Your task to perform on an android device: turn pop-ups off in chrome Image 0: 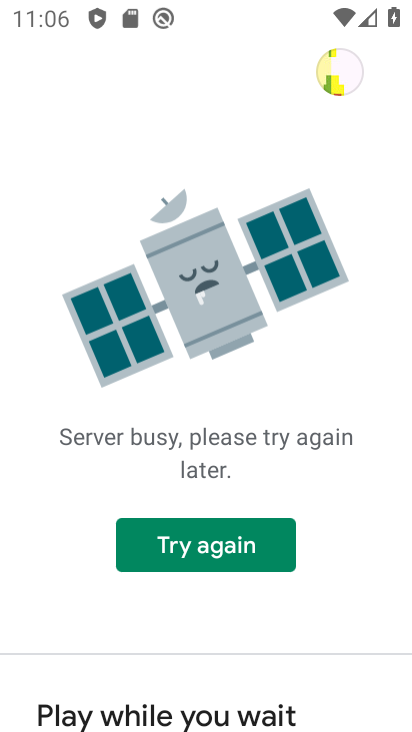
Step 0: press home button
Your task to perform on an android device: turn pop-ups off in chrome Image 1: 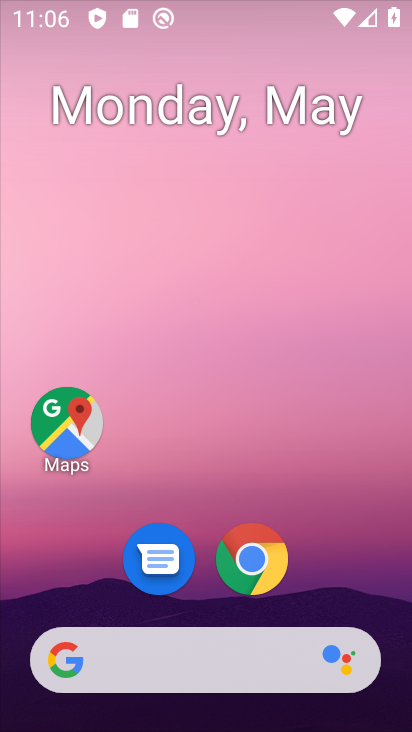
Step 1: drag from (375, 618) to (325, 96)
Your task to perform on an android device: turn pop-ups off in chrome Image 2: 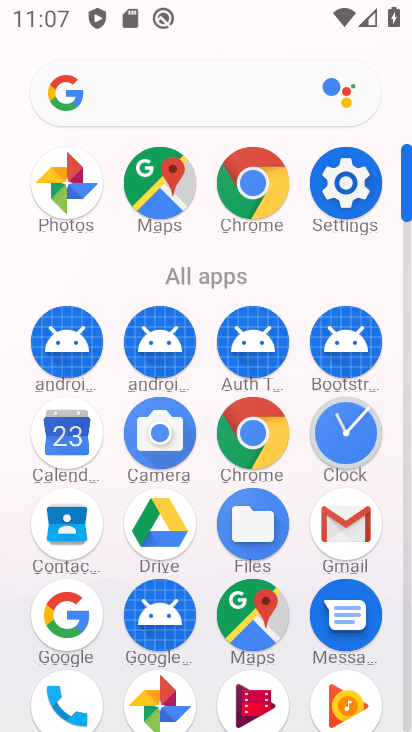
Step 2: click (252, 442)
Your task to perform on an android device: turn pop-ups off in chrome Image 3: 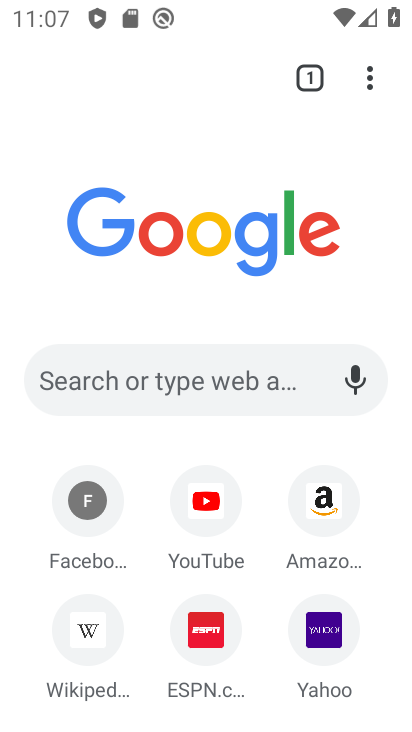
Step 3: click (373, 68)
Your task to perform on an android device: turn pop-ups off in chrome Image 4: 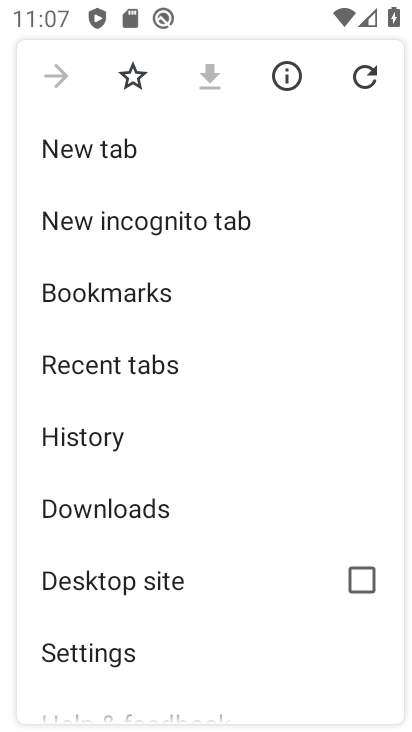
Step 4: click (101, 664)
Your task to perform on an android device: turn pop-ups off in chrome Image 5: 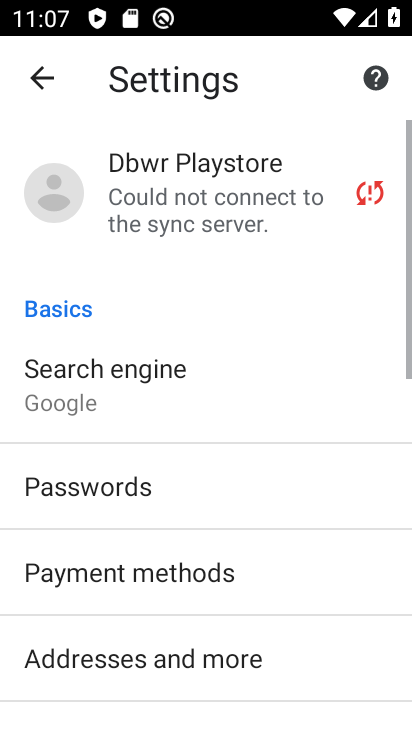
Step 5: drag from (101, 664) to (211, 157)
Your task to perform on an android device: turn pop-ups off in chrome Image 6: 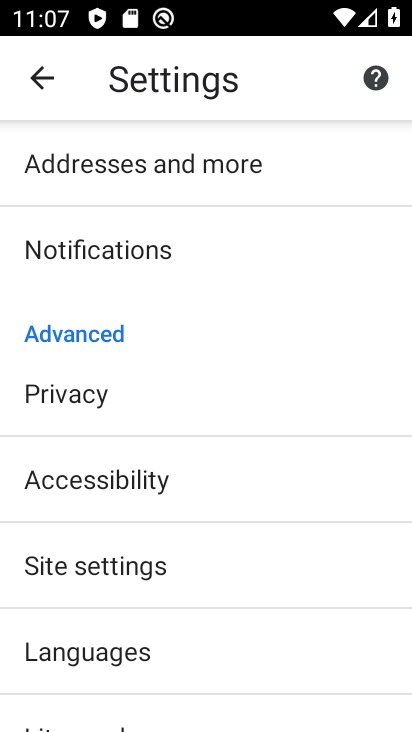
Step 6: click (159, 588)
Your task to perform on an android device: turn pop-ups off in chrome Image 7: 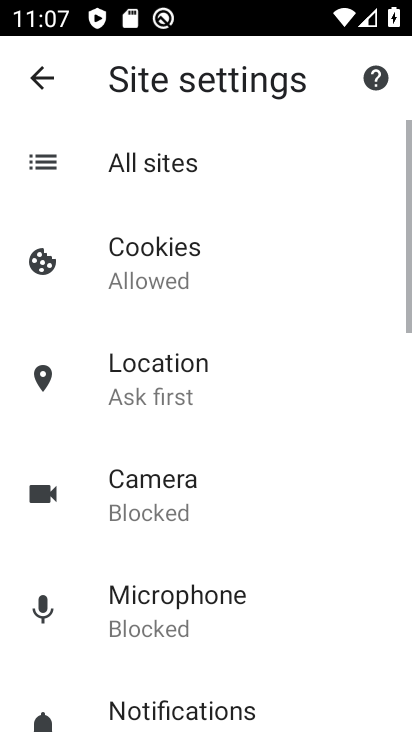
Step 7: drag from (166, 612) to (188, 121)
Your task to perform on an android device: turn pop-ups off in chrome Image 8: 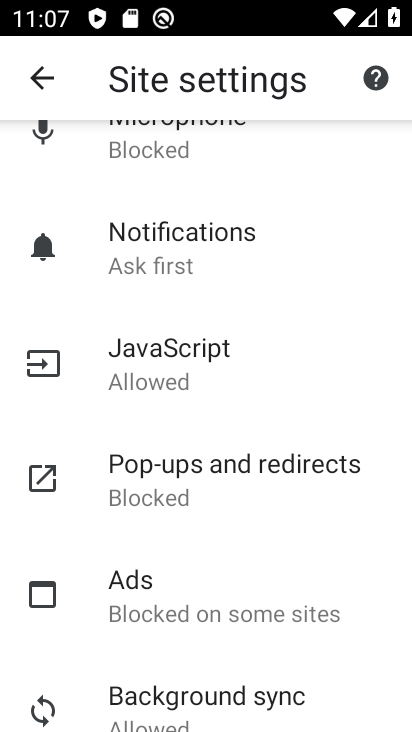
Step 8: click (204, 495)
Your task to perform on an android device: turn pop-ups off in chrome Image 9: 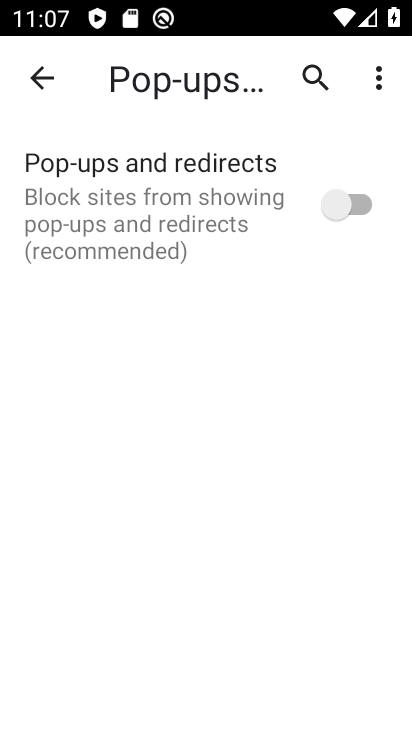
Step 9: click (314, 188)
Your task to perform on an android device: turn pop-ups off in chrome Image 10: 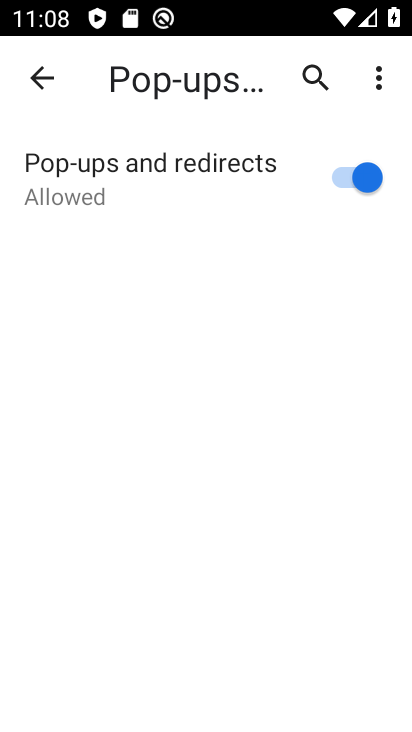
Step 10: click (314, 188)
Your task to perform on an android device: turn pop-ups off in chrome Image 11: 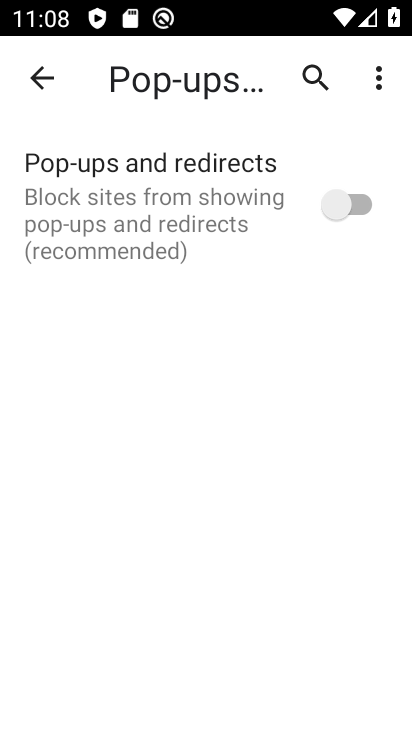
Step 11: task complete